Your task to perform on an android device: change the clock display to digital Image 0: 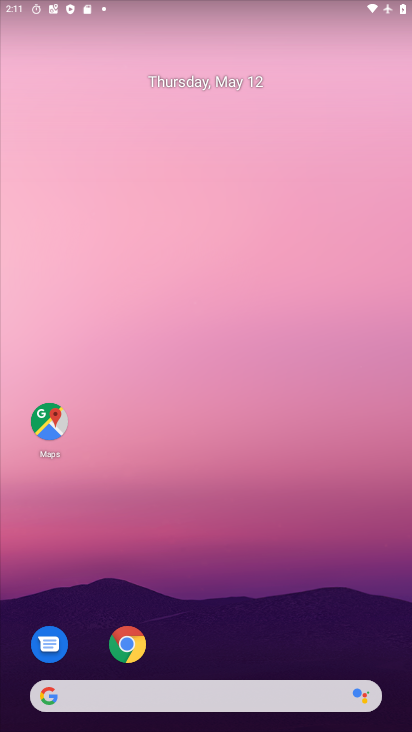
Step 0: drag from (213, 430) to (189, 27)
Your task to perform on an android device: change the clock display to digital Image 1: 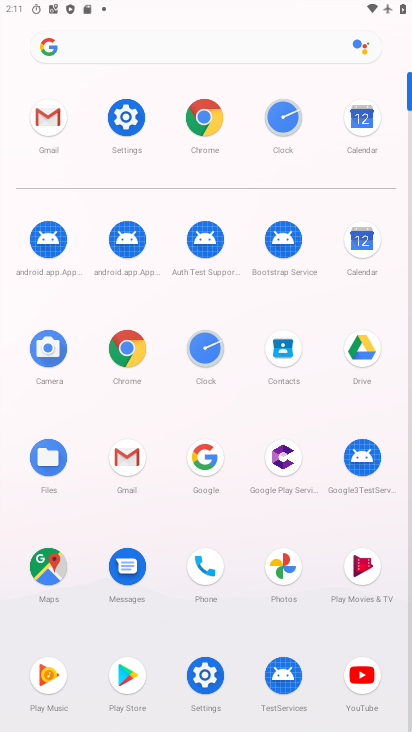
Step 1: click (280, 124)
Your task to perform on an android device: change the clock display to digital Image 2: 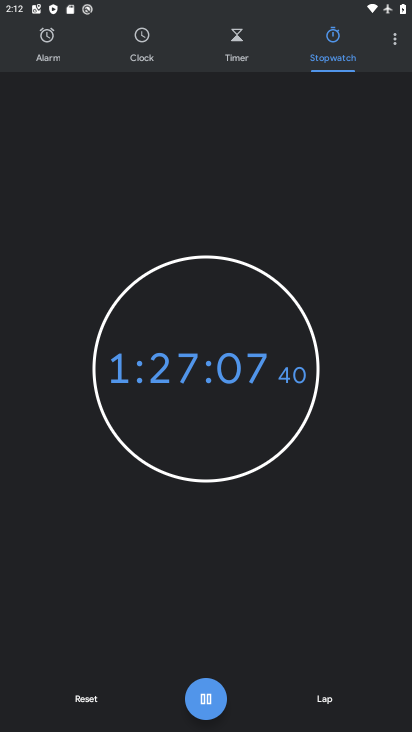
Step 2: click (391, 33)
Your task to perform on an android device: change the clock display to digital Image 3: 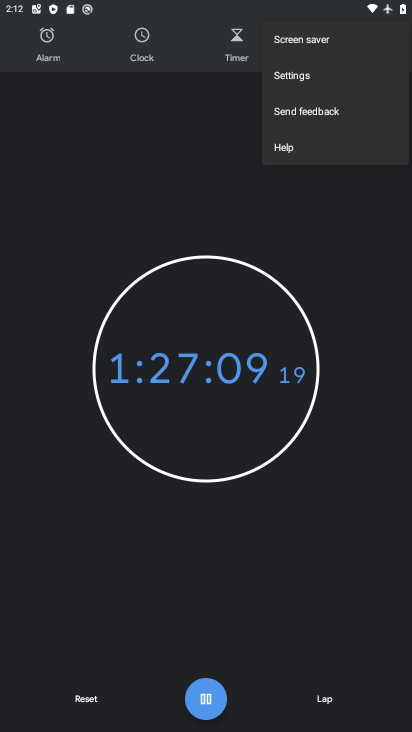
Step 3: click (294, 83)
Your task to perform on an android device: change the clock display to digital Image 4: 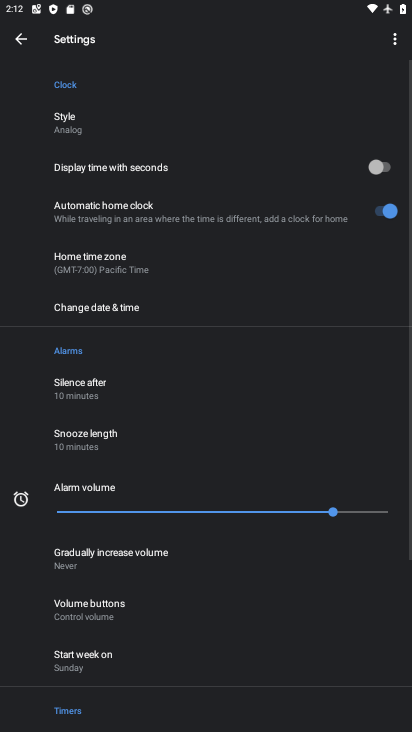
Step 4: click (144, 99)
Your task to perform on an android device: change the clock display to digital Image 5: 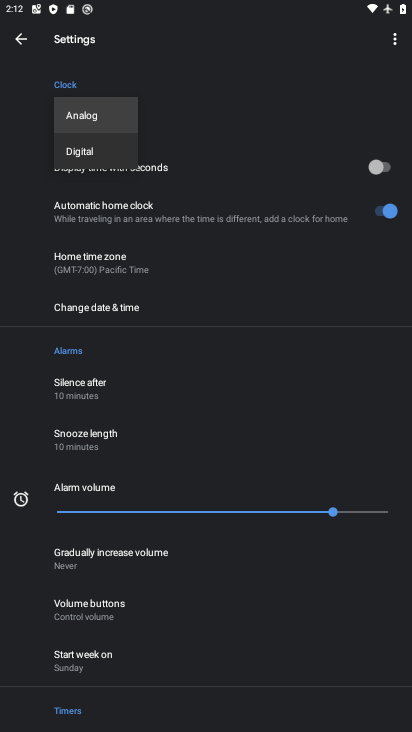
Step 5: click (113, 146)
Your task to perform on an android device: change the clock display to digital Image 6: 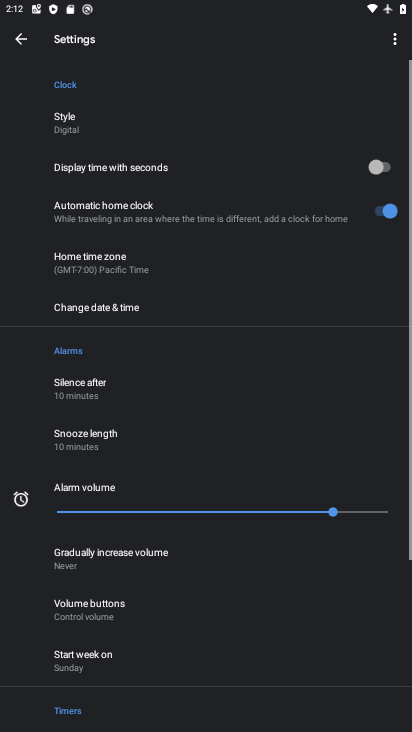
Step 6: task complete